Your task to perform on an android device: Open notification settings Image 0: 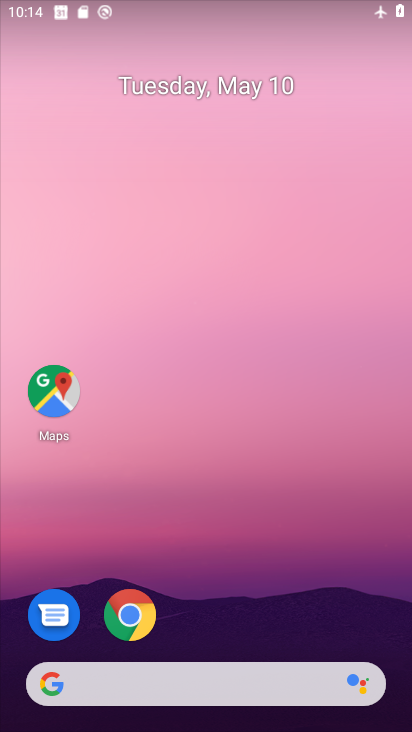
Step 0: click (337, 125)
Your task to perform on an android device: Open notification settings Image 1: 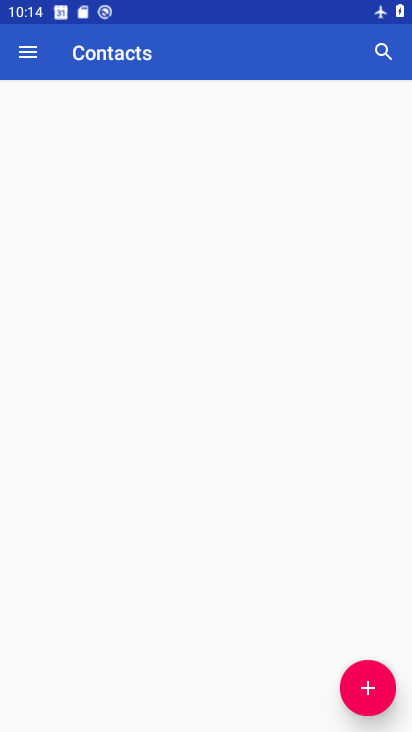
Step 1: drag from (199, 560) to (240, 199)
Your task to perform on an android device: Open notification settings Image 2: 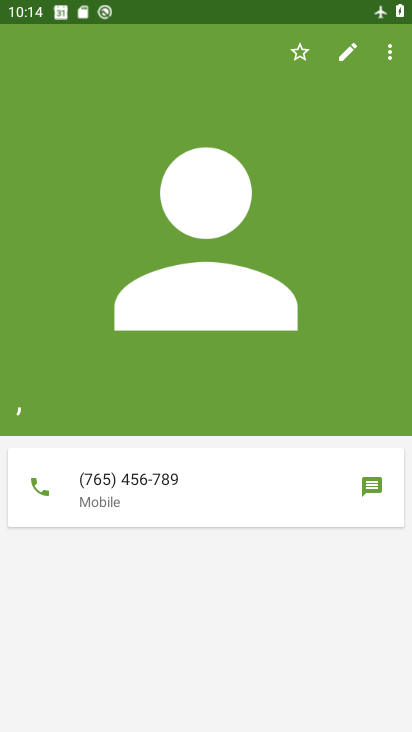
Step 2: drag from (219, 638) to (226, 226)
Your task to perform on an android device: Open notification settings Image 3: 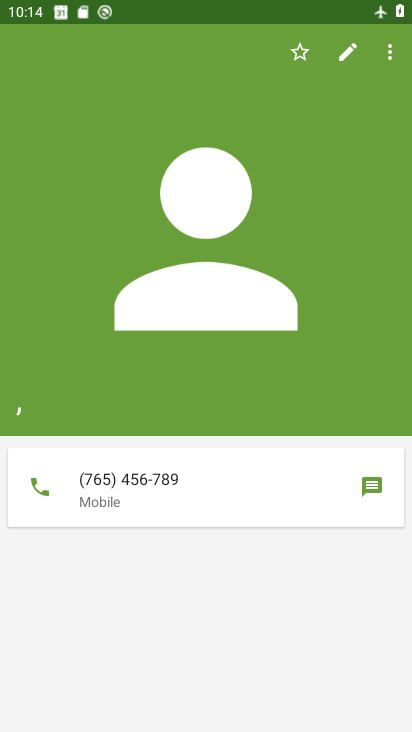
Step 3: press home button
Your task to perform on an android device: Open notification settings Image 4: 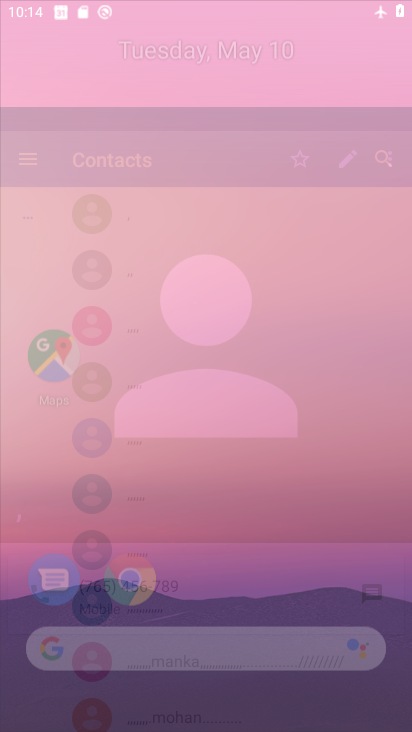
Step 4: drag from (147, 627) to (248, 132)
Your task to perform on an android device: Open notification settings Image 5: 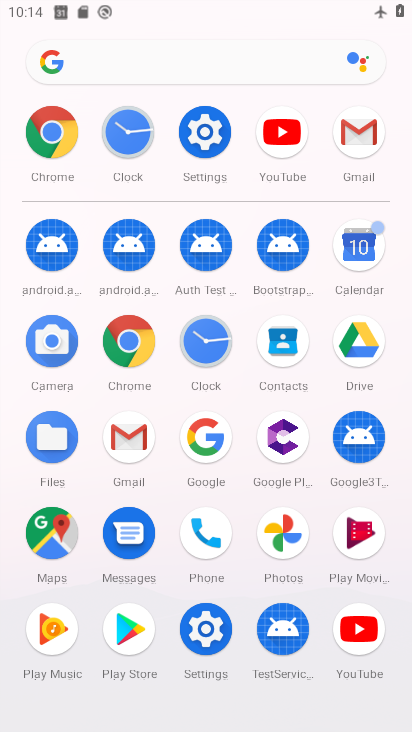
Step 5: click (200, 129)
Your task to perform on an android device: Open notification settings Image 6: 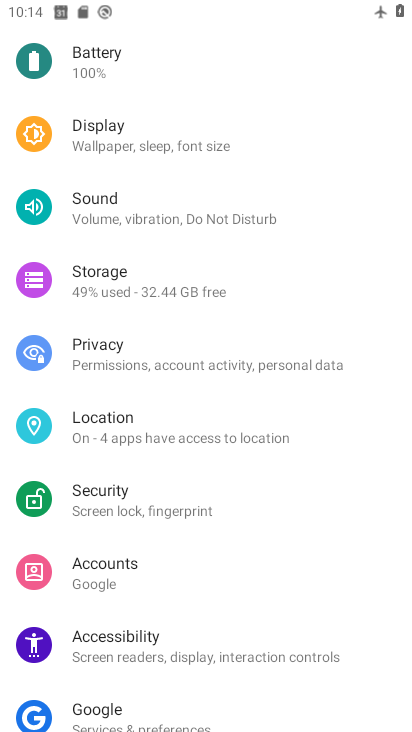
Step 6: drag from (105, 190) to (257, 691)
Your task to perform on an android device: Open notification settings Image 7: 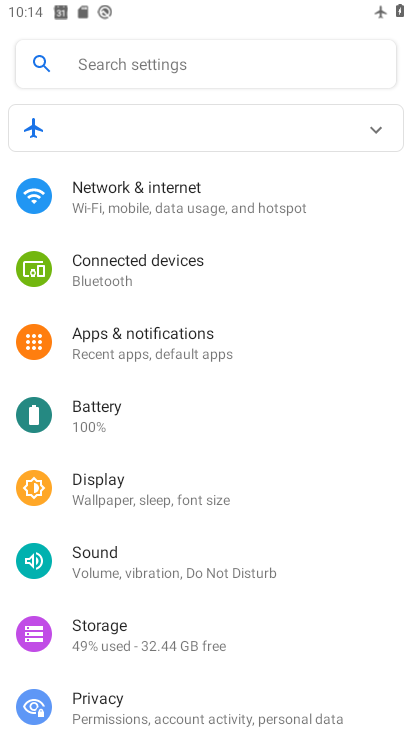
Step 7: click (108, 342)
Your task to perform on an android device: Open notification settings Image 8: 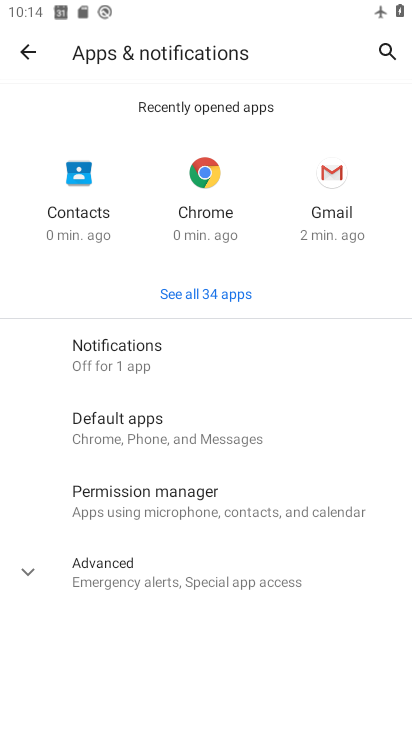
Step 8: click (150, 363)
Your task to perform on an android device: Open notification settings Image 9: 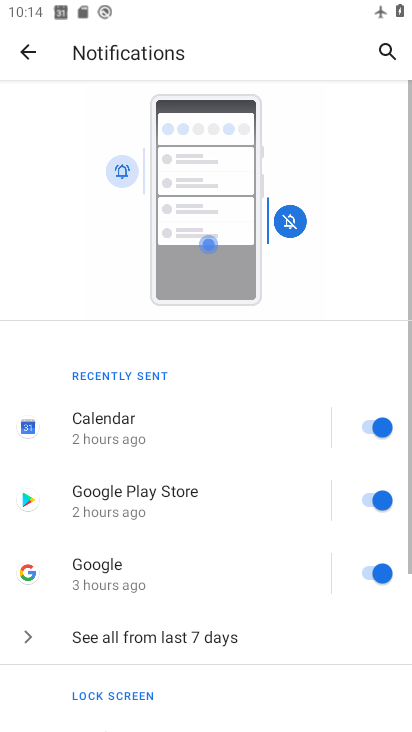
Step 9: task complete